Your task to perform on an android device: turn pop-ups off in chrome Image 0: 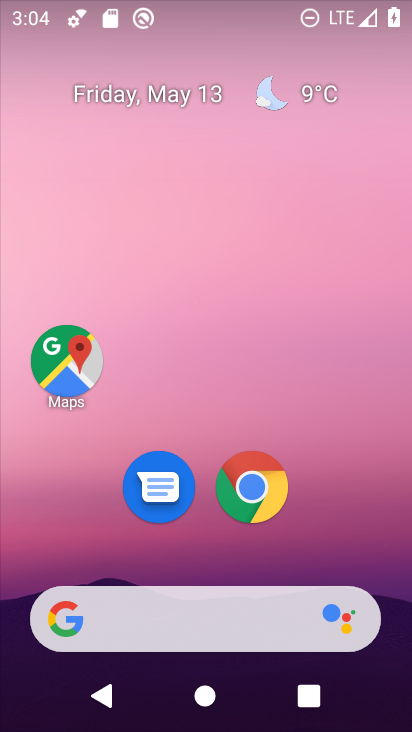
Step 0: click (251, 499)
Your task to perform on an android device: turn pop-ups off in chrome Image 1: 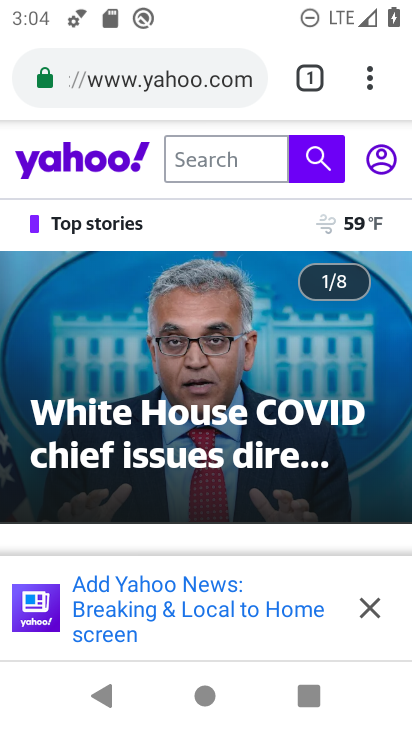
Step 1: click (374, 72)
Your task to perform on an android device: turn pop-ups off in chrome Image 2: 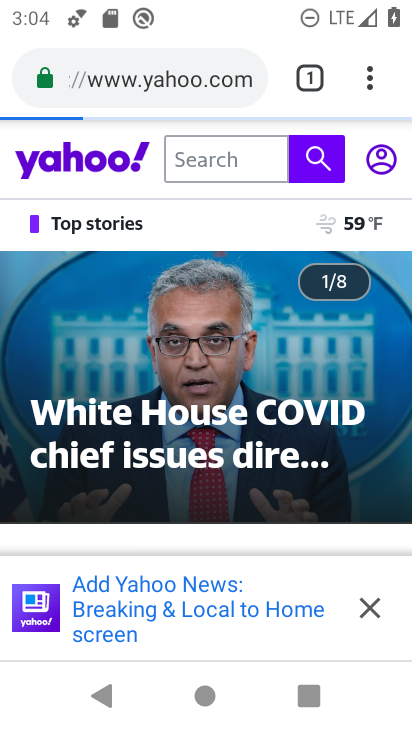
Step 2: drag from (374, 72) to (101, 542)
Your task to perform on an android device: turn pop-ups off in chrome Image 3: 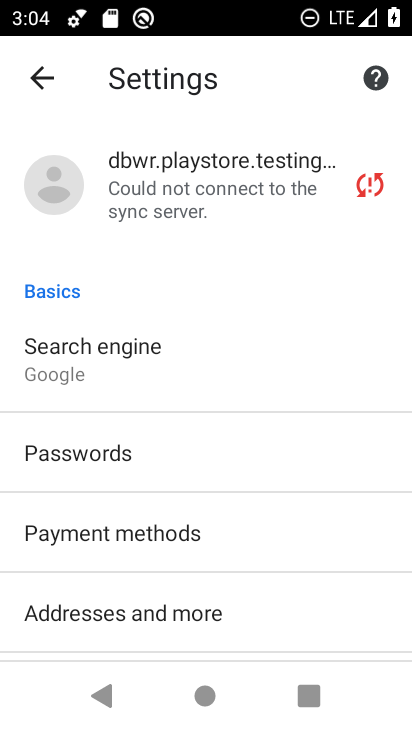
Step 3: drag from (146, 561) to (135, 36)
Your task to perform on an android device: turn pop-ups off in chrome Image 4: 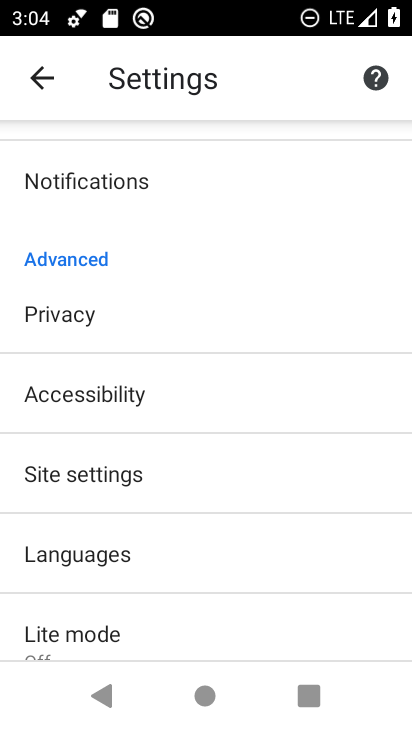
Step 4: drag from (167, 584) to (150, 33)
Your task to perform on an android device: turn pop-ups off in chrome Image 5: 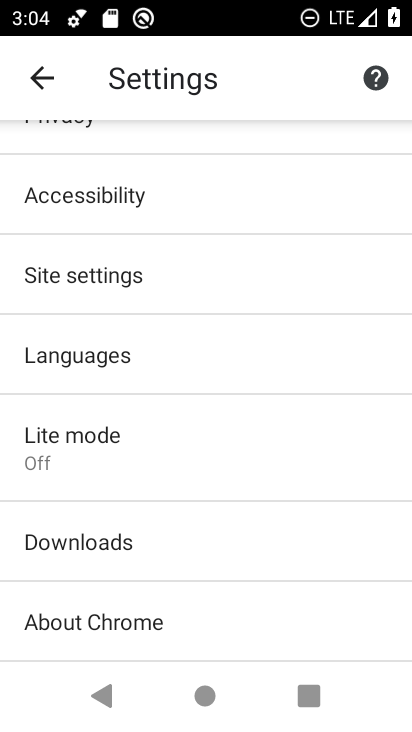
Step 5: click (124, 265)
Your task to perform on an android device: turn pop-ups off in chrome Image 6: 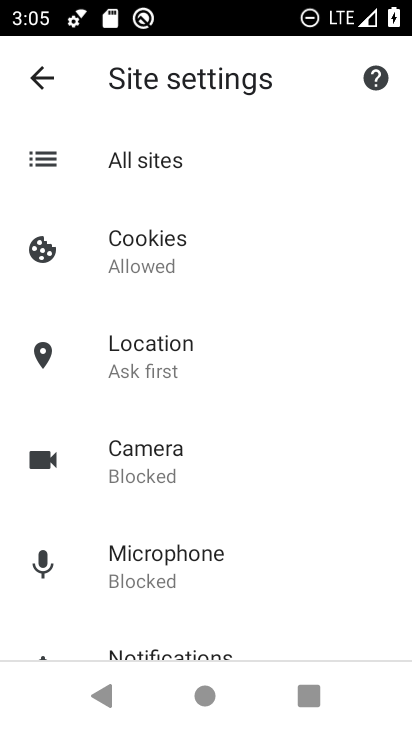
Step 6: drag from (233, 516) to (305, 56)
Your task to perform on an android device: turn pop-ups off in chrome Image 7: 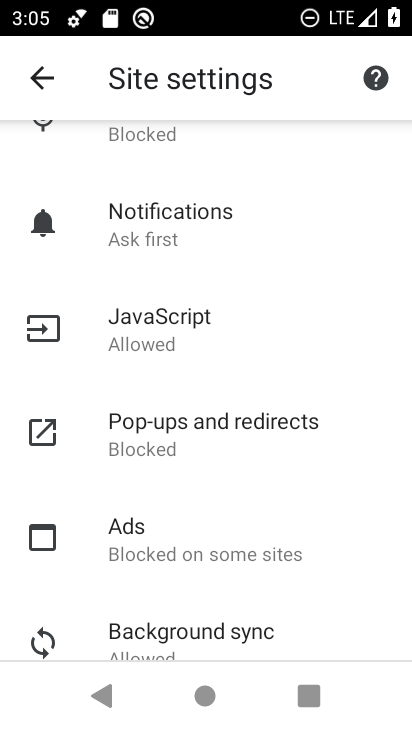
Step 7: click (202, 433)
Your task to perform on an android device: turn pop-ups off in chrome Image 8: 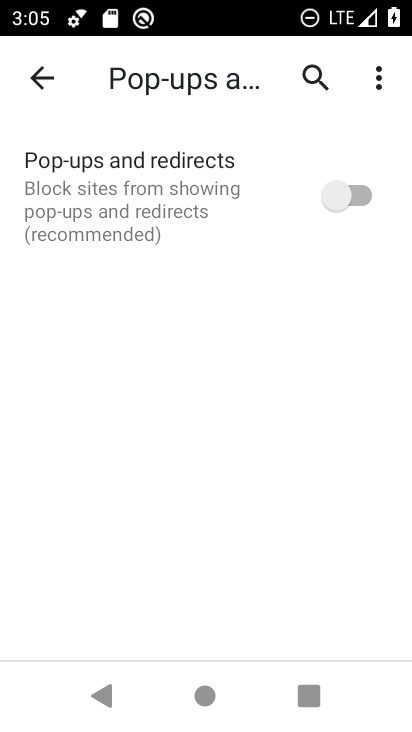
Step 8: task complete